Your task to perform on an android device: turn on airplane mode Image 0: 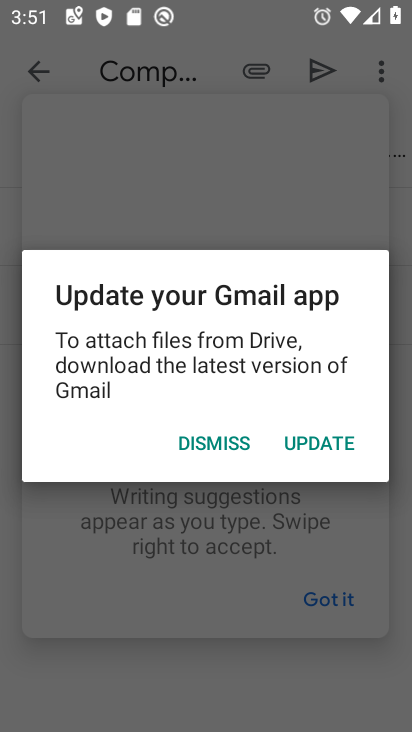
Step 0: click (389, 273)
Your task to perform on an android device: turn on airplane mode Image 1: 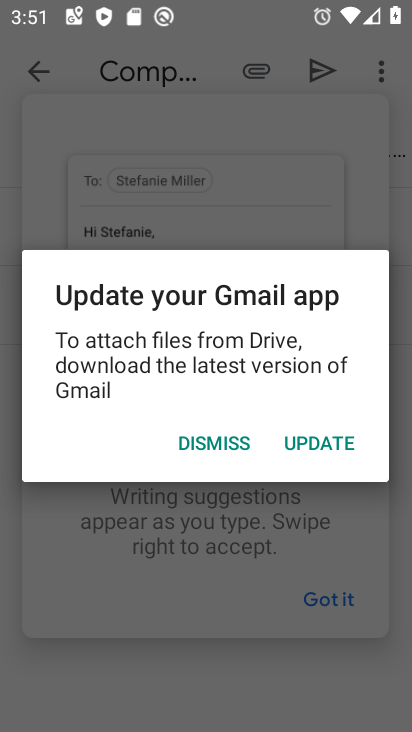
Step 1: press home button
Your task to perform on an android device: turn on airplane mode Image 2: 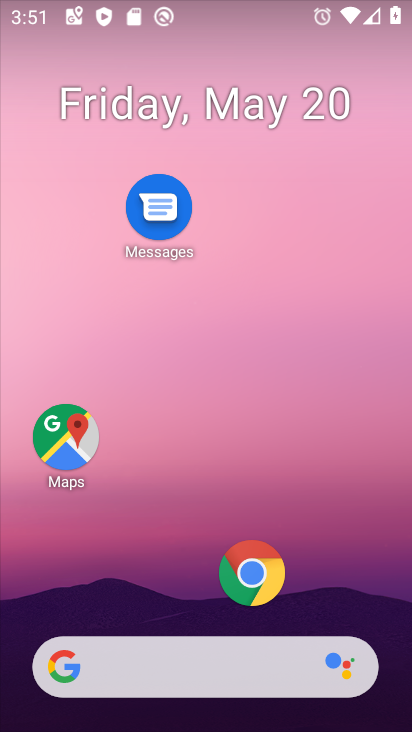
Step 2: drag from (201, 621) to (147, 11)
Your task to perform on an android device: turn on airplane mode Image 3: 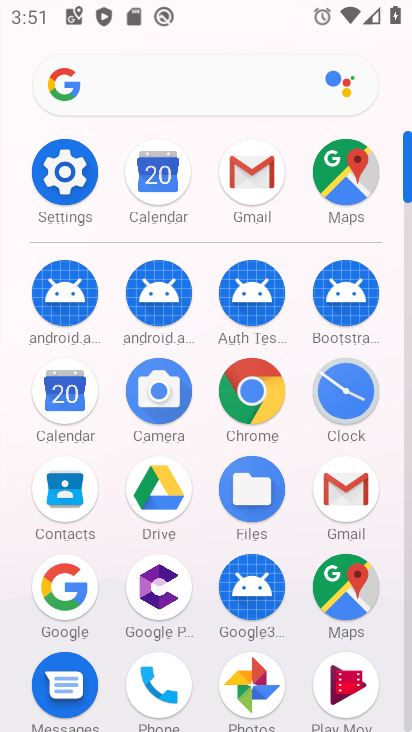
Step 3: click (77, 192)
Your task to perform on an android device: turn on airplane mode Image 4: 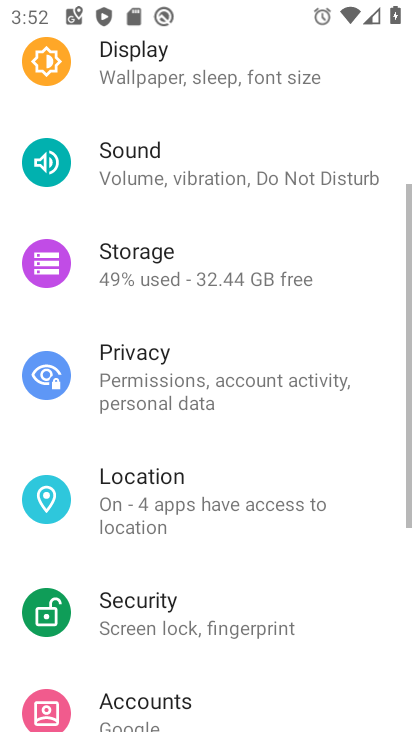
Step 4: drag from (140, 165) to (102, 676)
Your task to perform on an android device: turn on airplane mode Image 5: 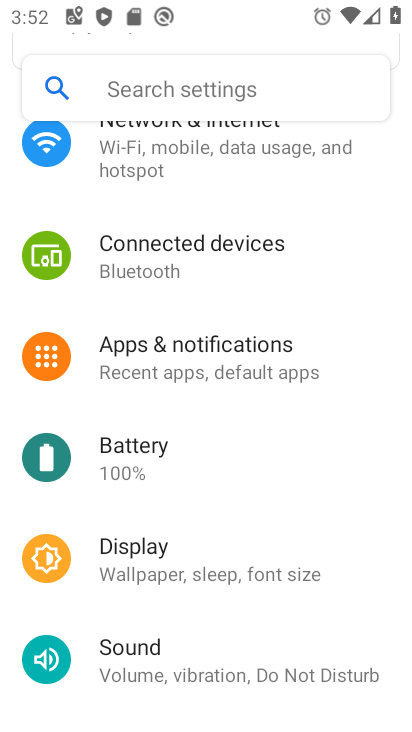
Step 5: drag from (126, 177) to (114, 534)
Your task to perform on an android device: turn on airplane mode Image 6: 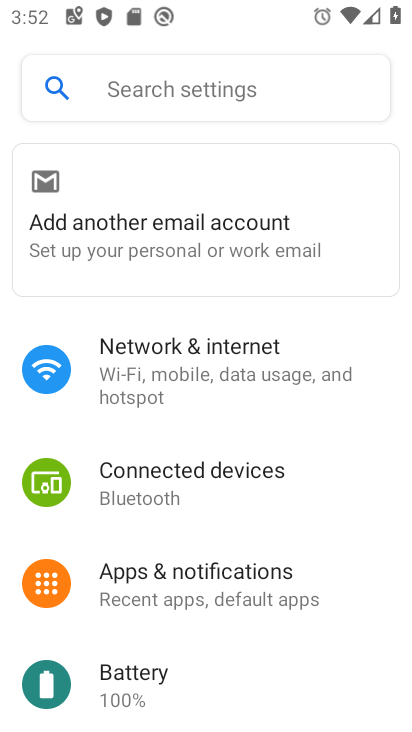
Step 6: click (128, 361)
Your task to perform on an android device: turn on airplane mode Image 7: 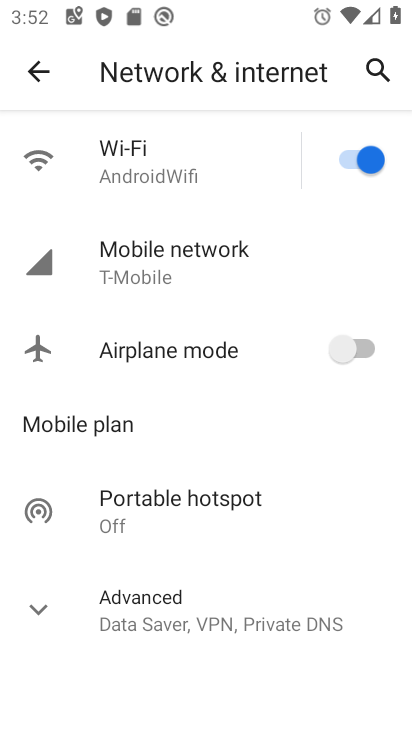
Step 7: click (366, 360)
Your task to perform on an android device: turn on airplane mode Image 8: 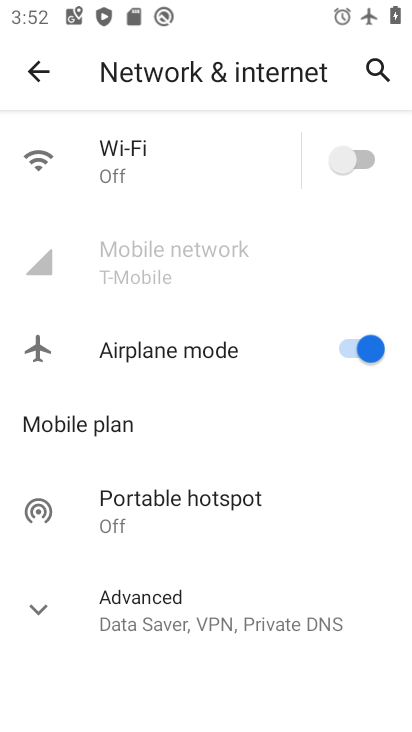
Step 8: task complete